Your task to perform on an android device: create a new album in the google photos Image 0: 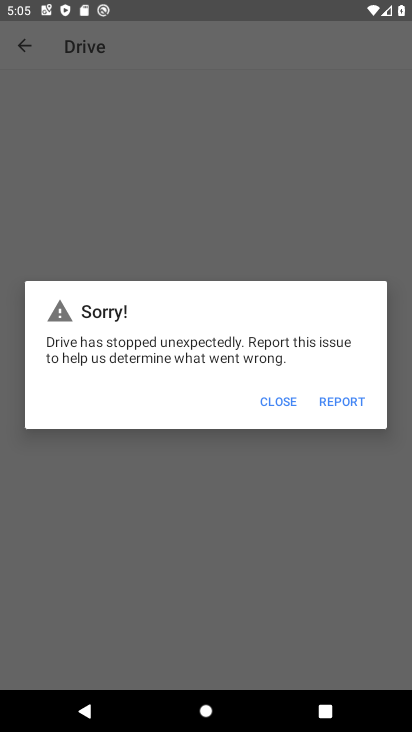
Step 0: press back button
Your task to perform on an android device: create a new album in the google photos Image 1: 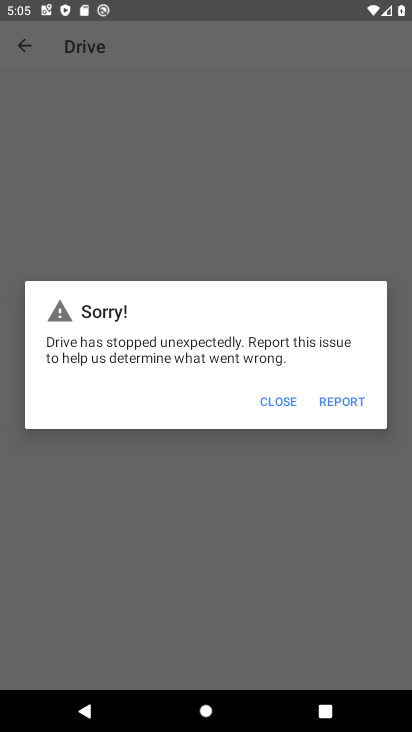
Step 1: press home button
Your task to perform on an android device: create a new album in the google photos Image 2: 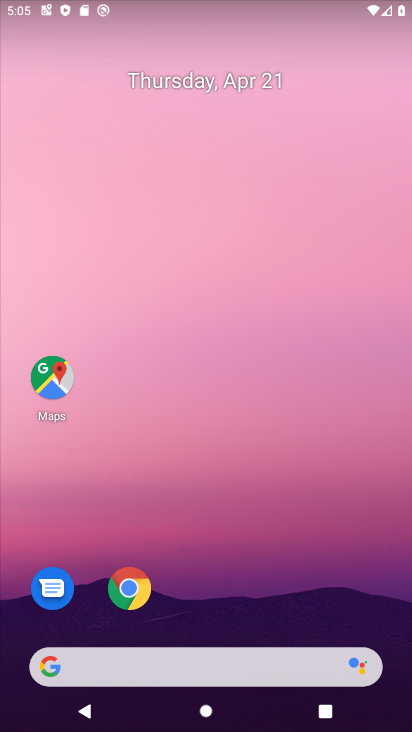
Step 2: drag from (236, 530) to (339, 70)
Your task to perform on an android device: create a new album in the google photos Image 3: 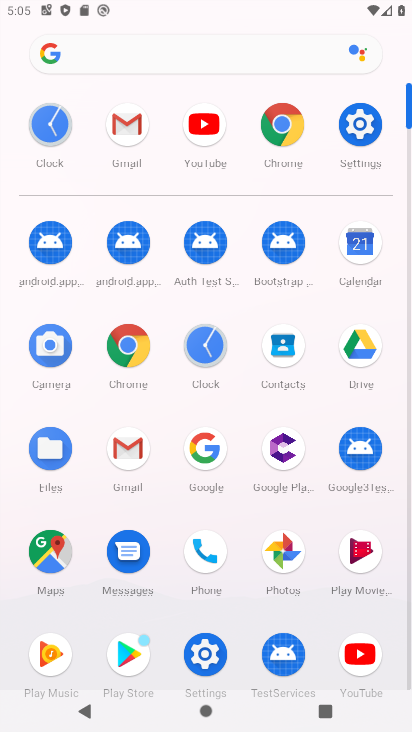
Step 3: click (282, 558)
Your task to perform on an android device: create a new album in the google photos Image 4: 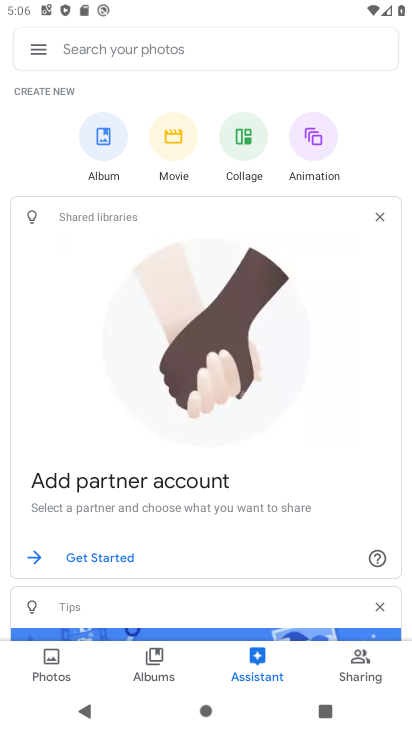
Step 4: click (98, 129)
Your task to perform on an android device: create a new album in the google photos Image 5: 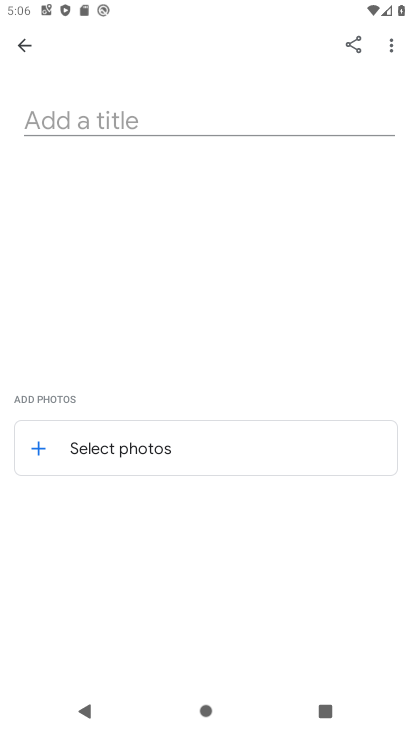
Step 5: click (108, 119)
Your task to perform on an android device: create a new album in the google photos Image 6: 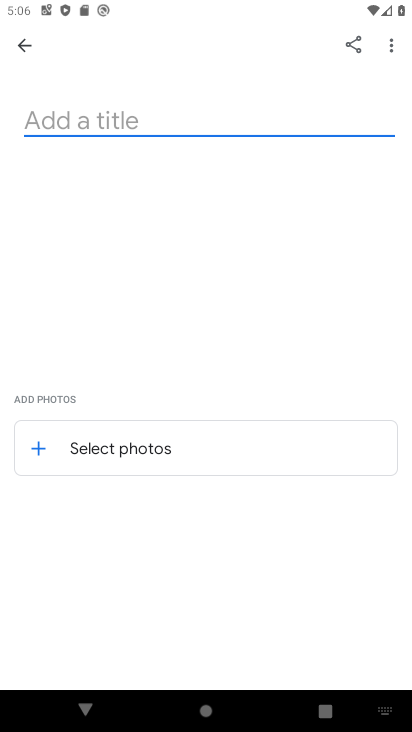
Step 6: type "fgf"
Your task to perform on an android device: create a new album in the google photos Image 7: 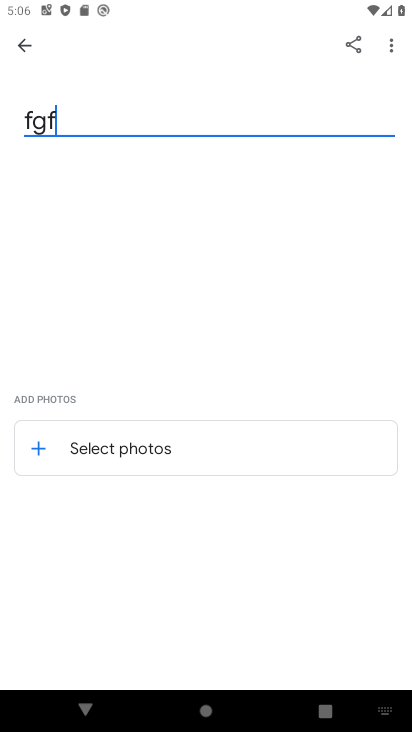
Step 7: click (157, 454)
Your task to perform on an android device: create a new album in the google photos Image 8: 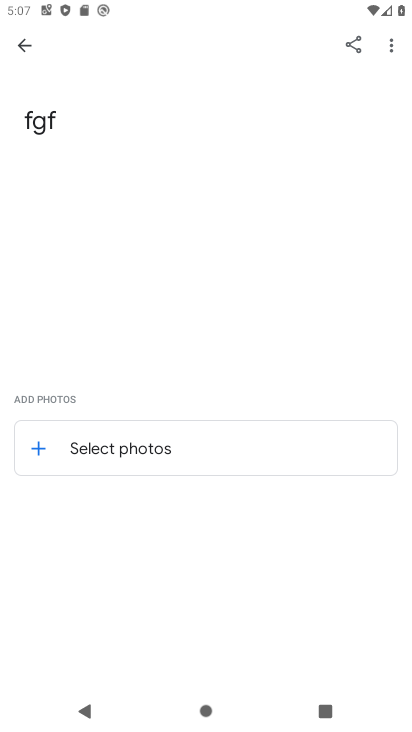
Step 8: click (76, 447)
Your task to perform on an android device: create a new album in the google photos Image 9: 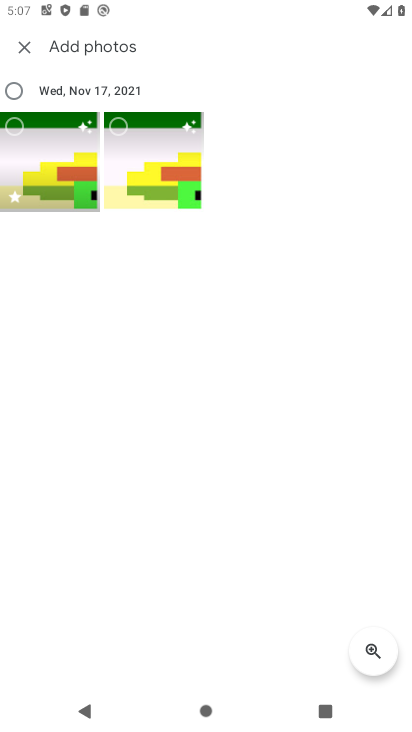
Step 9: click (10, 79)
Your task to perform on an android device: create a new album in the google photos Image 10: 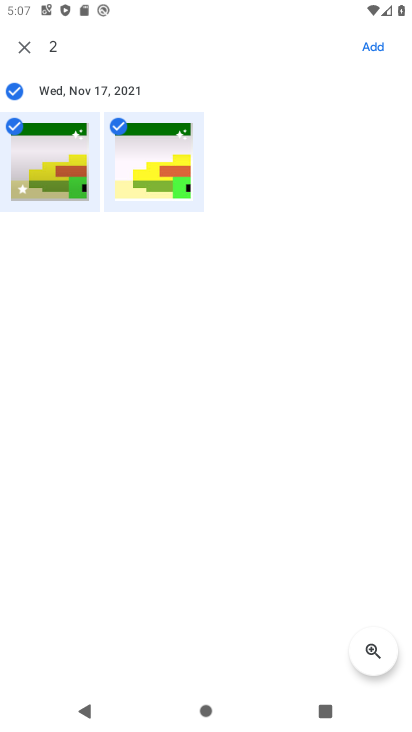
Step 10: click (367, 38)
Your task to perform on an android device: create a new album in the google photos Image 11: 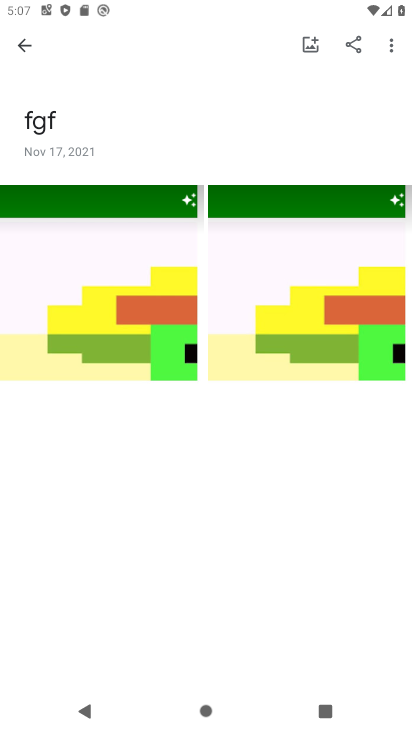
Step 11: task complete